Your task to perform on an android device: Open Chrome and go to settings Image 0: 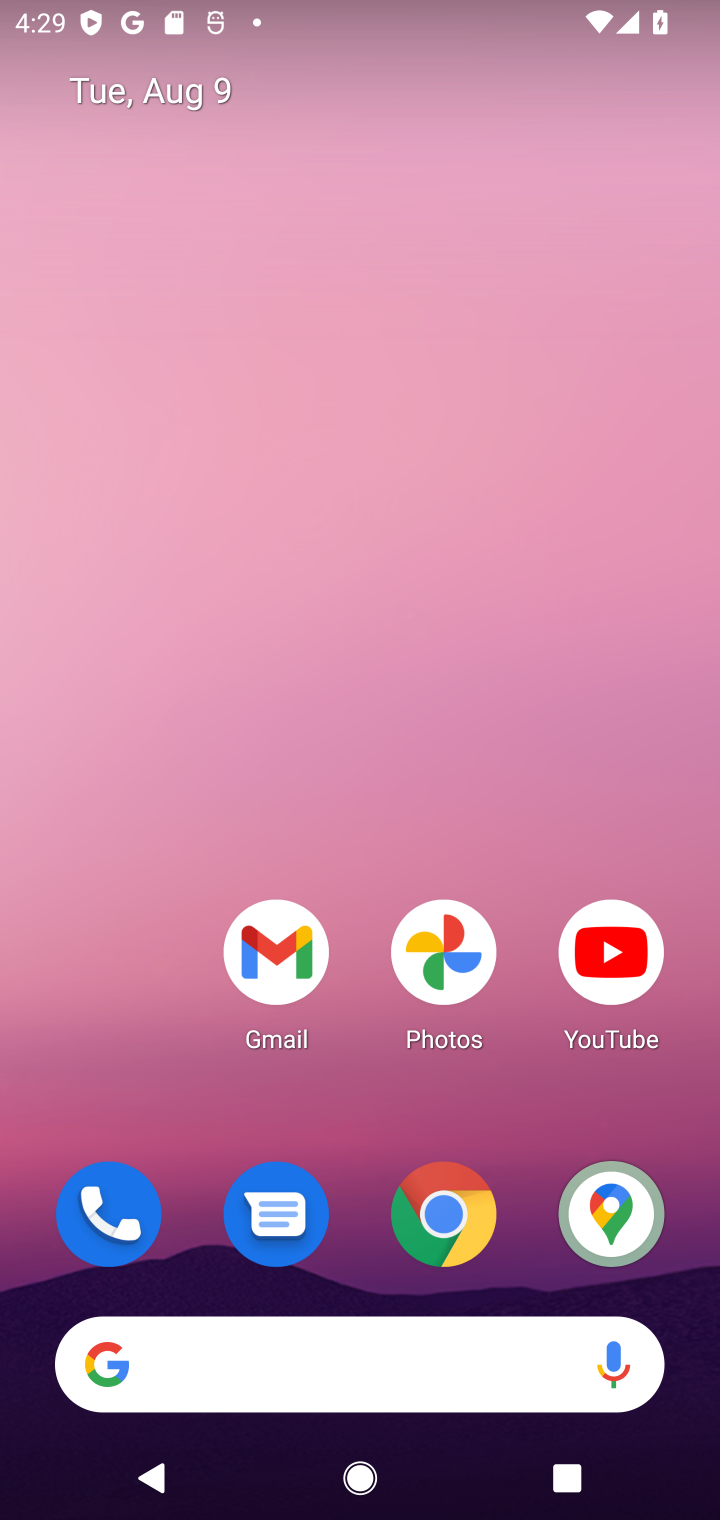
Step 0: press home button
Your task to perform on an android device: Open Chrome and go to settings Image 1: 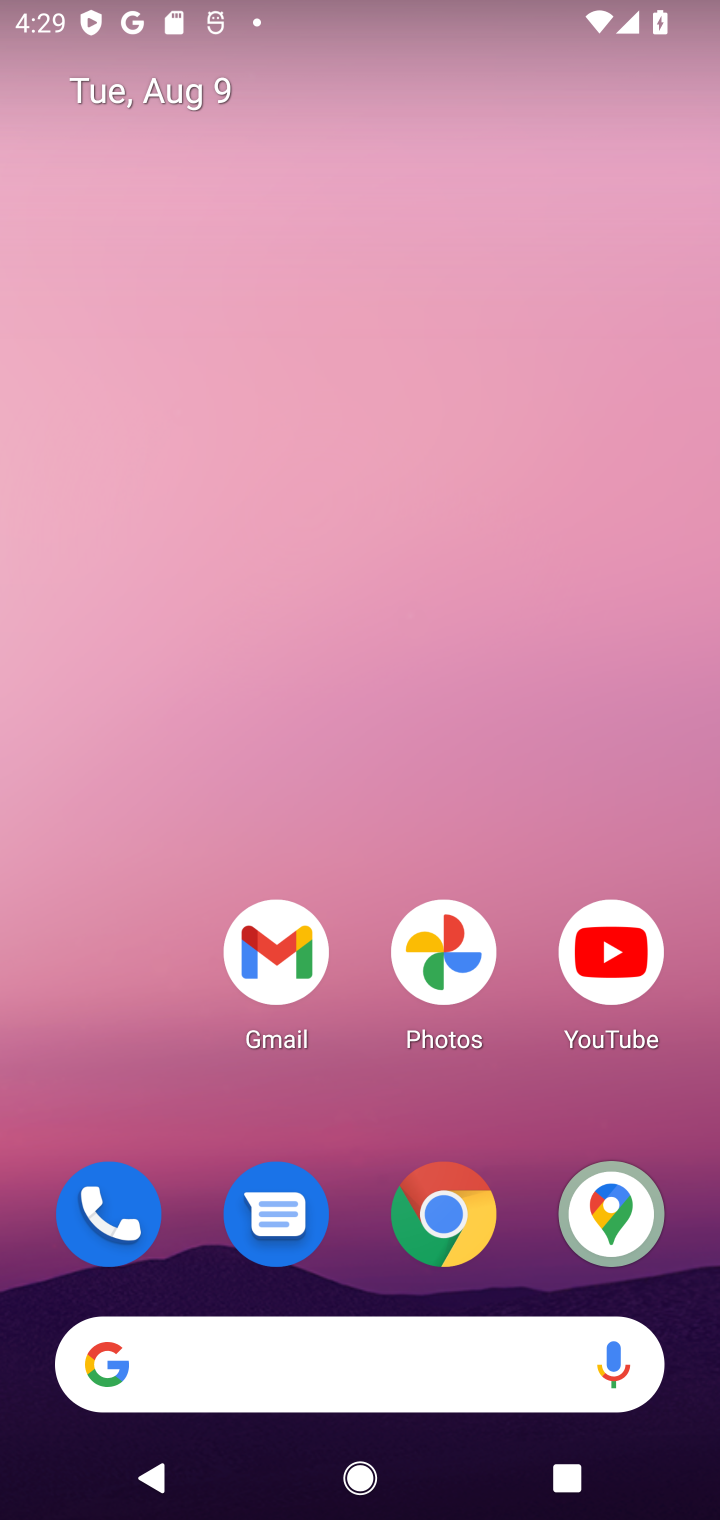
Step 1: click (452, 1220)
Your task to perform on an android device: Open Chrome and go to settings Image 2: 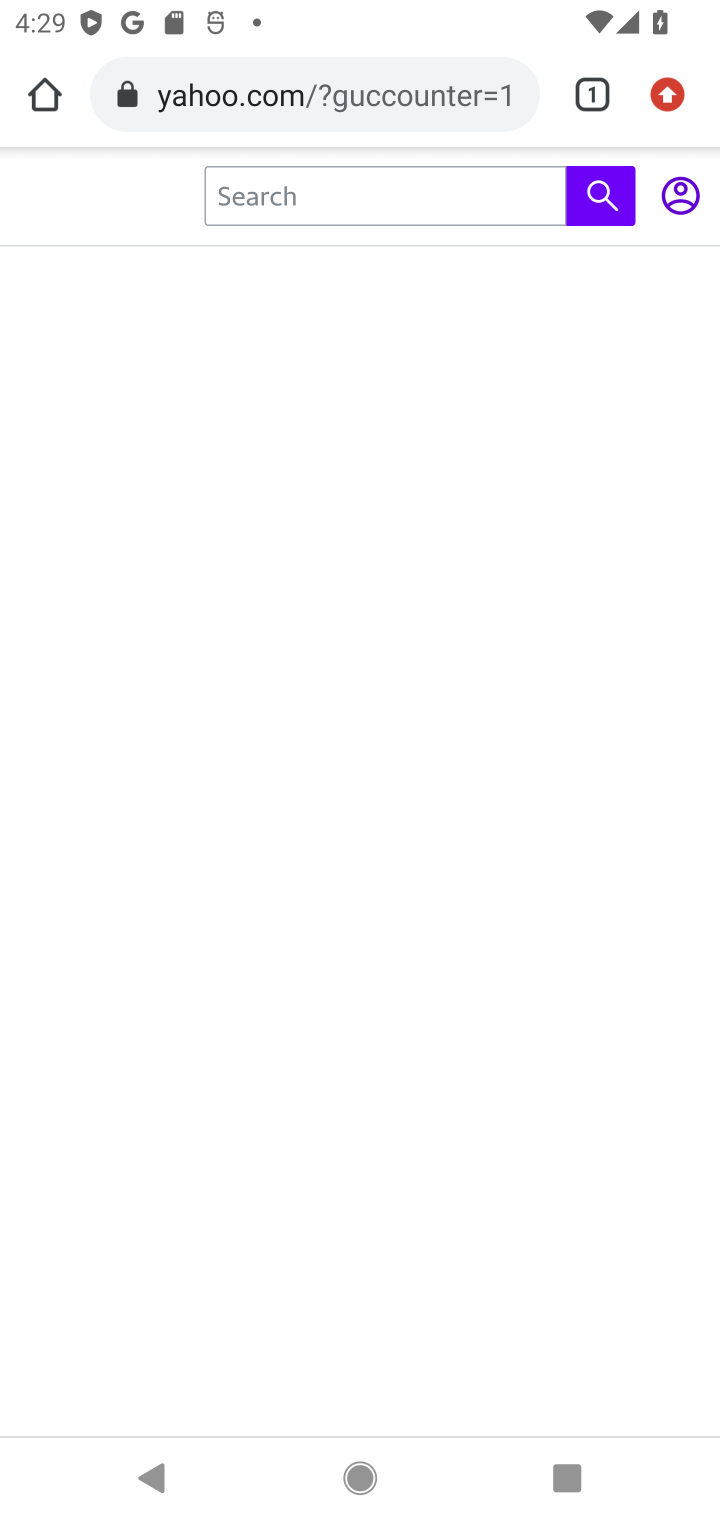
Step 2: click (662, 108)
Your task to perform on an android device: Open Chrome and go to settings Image 3: 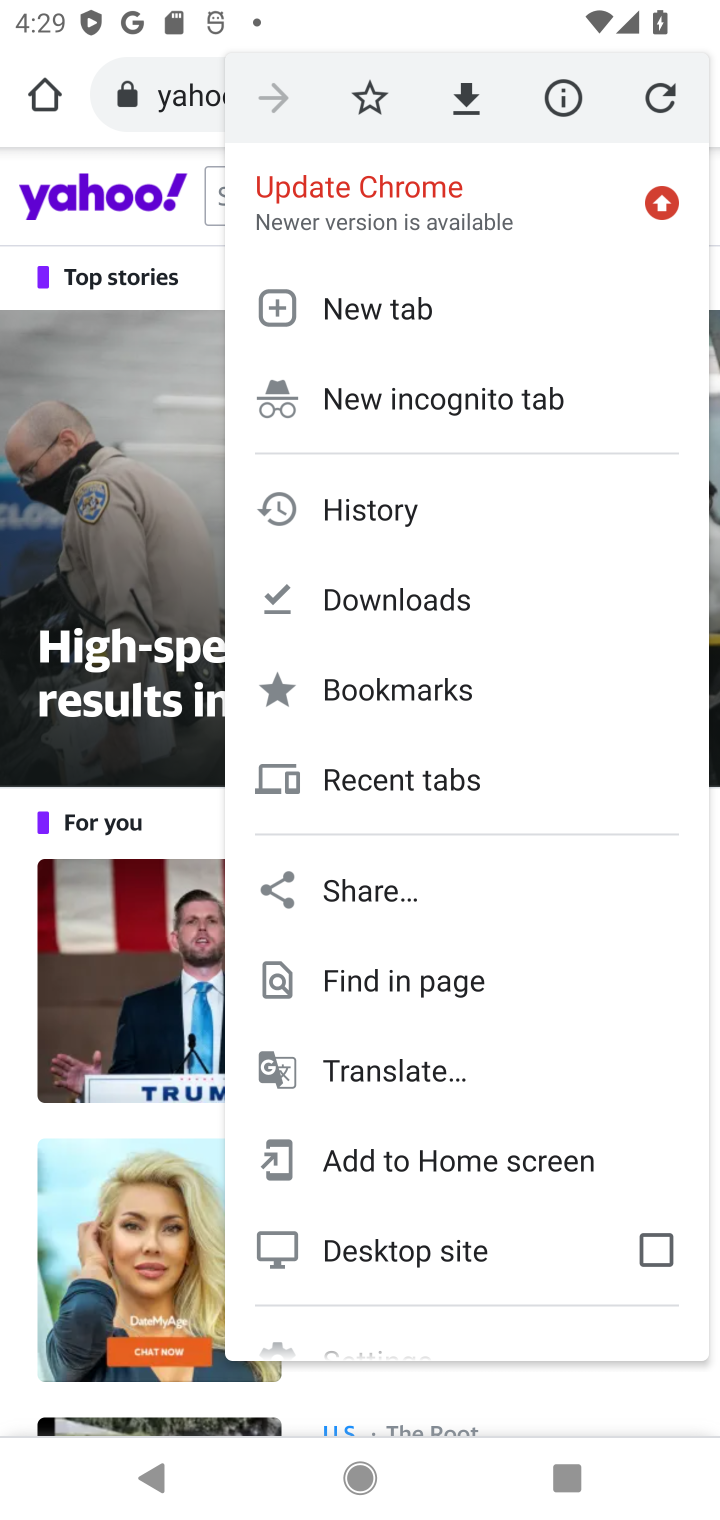
Step 3: click (367, 1337)
Your task to perform on an android device: Open Chrome and go to settings Image 4: 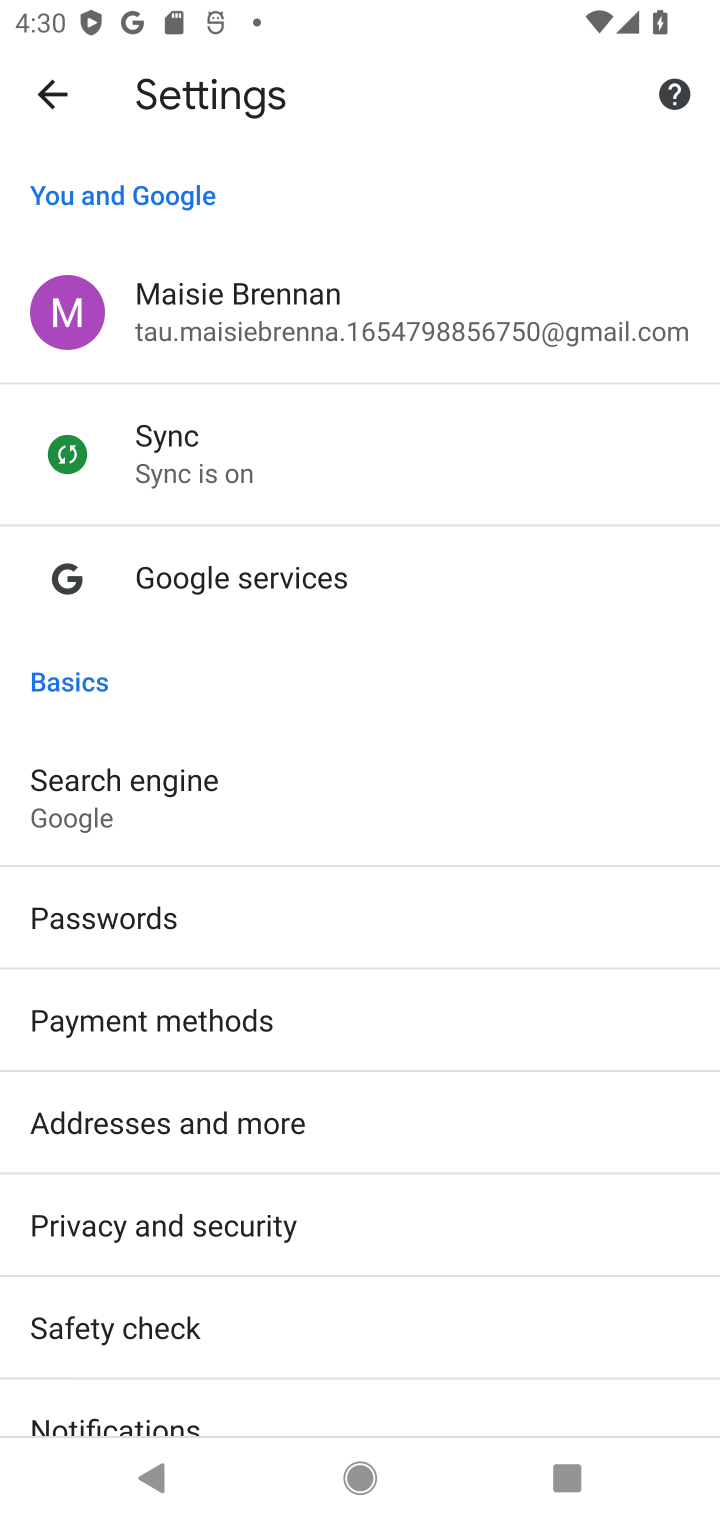
Step 4: task complete